Your task to perform on an android device: Open Android settings Image 0: 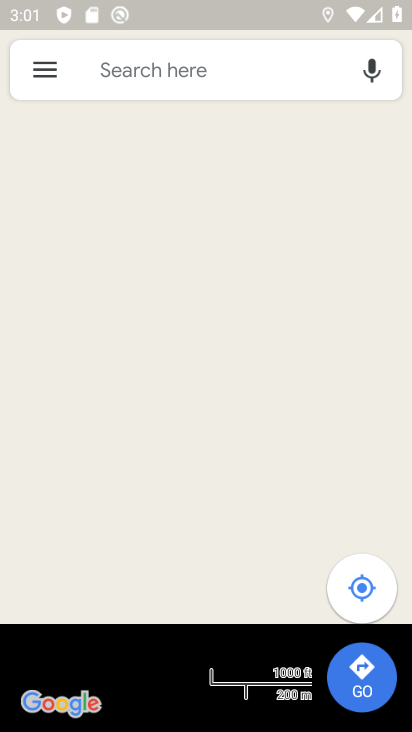
Step 0: drag from (356, 617) to (231, 429)
Your task to perform on an android device: Open Android settings Image 1: 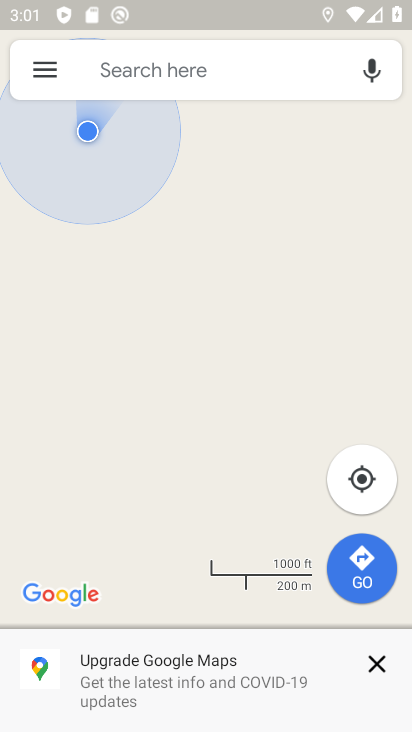
Step 1: press home button
Your task to perform on an android device: Open Android settings Image 2: 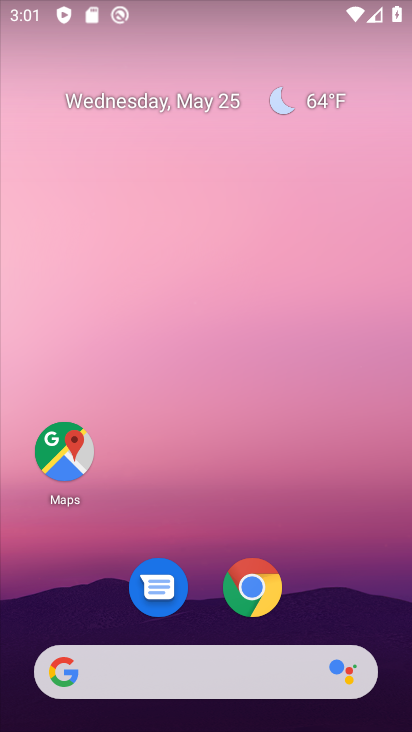
Step 2: drag from (348, 598) to (224, 153)
Your task to perform on an android device: Open Android settings Image 3: 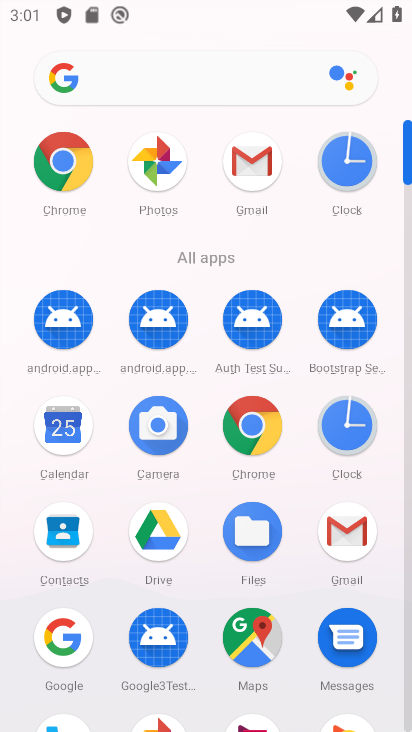
Step 3: click (405, 688)
Your task to perform on an android device: Open Android settings Image 4: 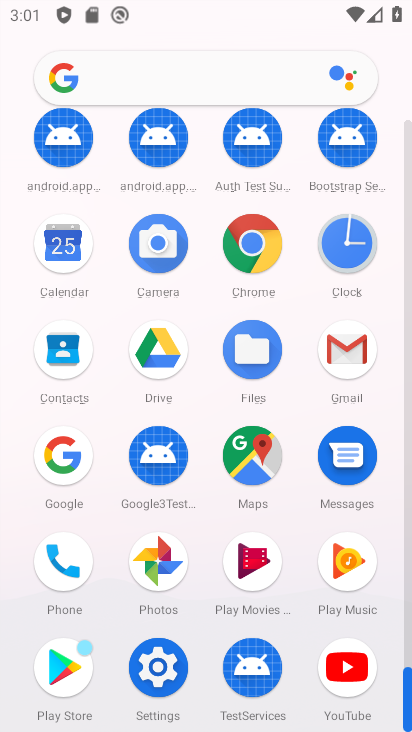
Step 4: click (170, 667)
Your task to perform on an android device: Open Android settings Image 5: 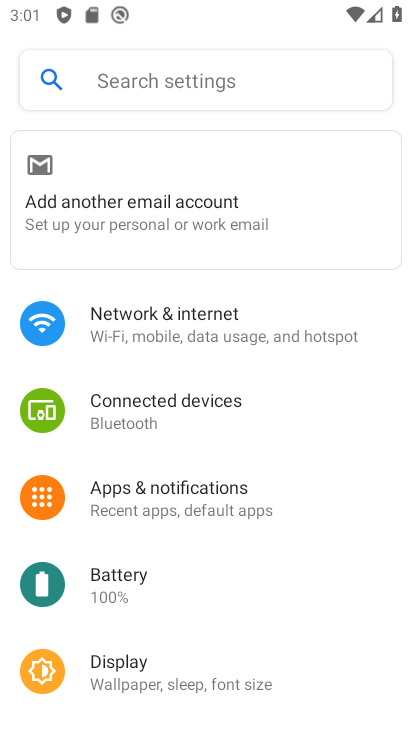
Step 5: task complete